Your task to perform on an android device: What's the weather going to be tomorrow? Image 0: 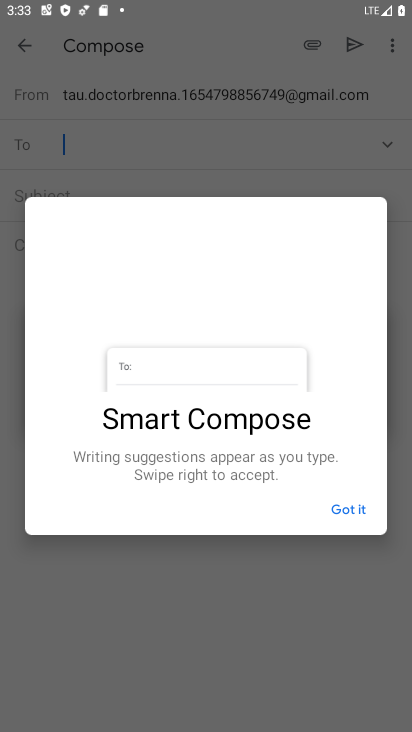
Step 0: press home button
Your task to perform on an android device: What's the weather going to be tomorrow? Image 1: 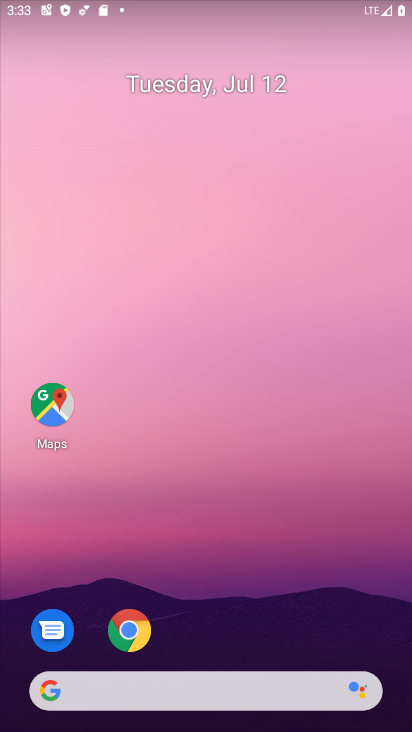
Step 1: drag from (260, 685) to (249, 5)
Your task to perform on an android device: What's the weather going to be tomorrow? Image 2: 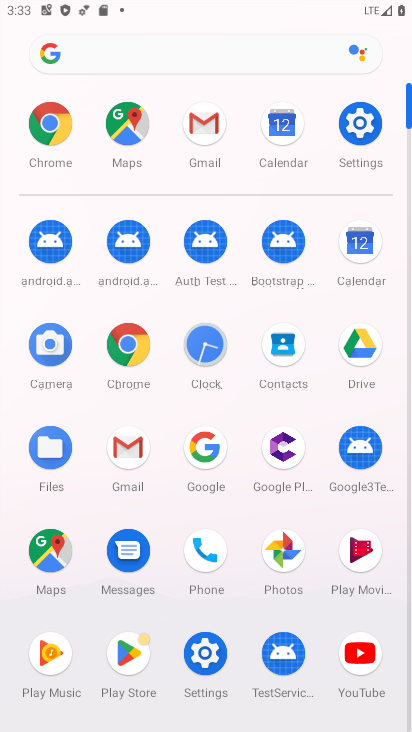
Step 2: click (133, 333)
Your task to perform on an android device: What's the weather going to be tomorrow? Image 3: 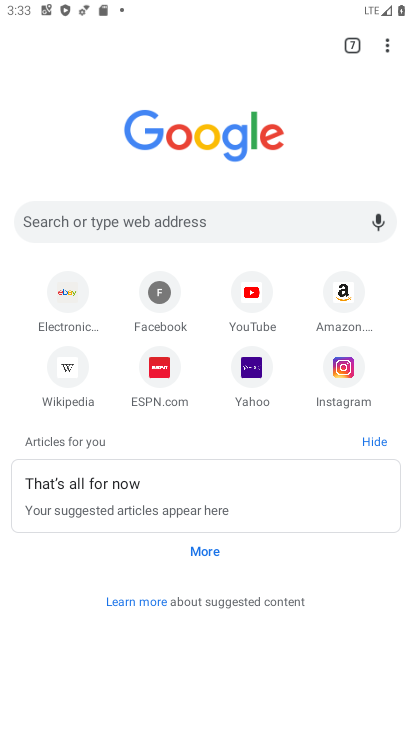
Step 3: click (194, 217)
Your task to perform on an android device: What's the weather going to be tomorrow? Image 4: 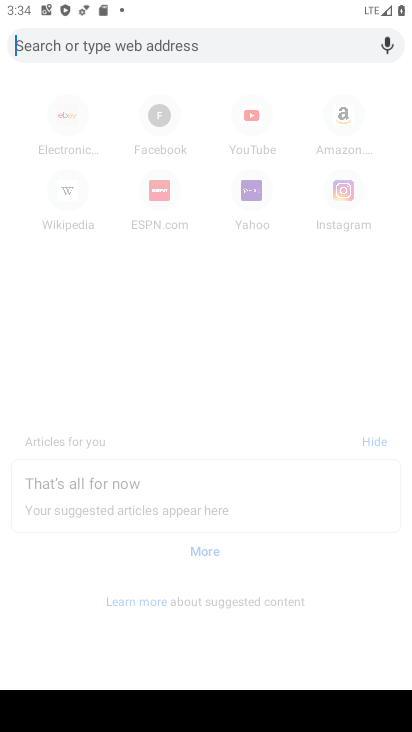
Step 4: type "weather going to be tomorrow"
Your task to perform on an android device: What's the weather going to be tomorrow? Image 5: 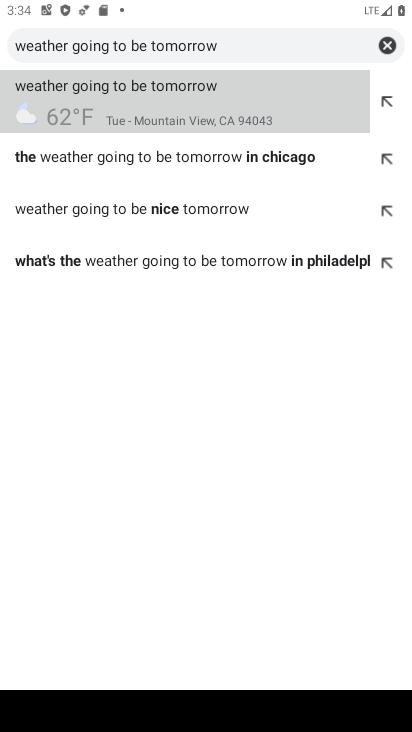
Step 5: click (143, 91)
Your task to perform on an android device: What's the weather going to be tomorrow? Image 6: 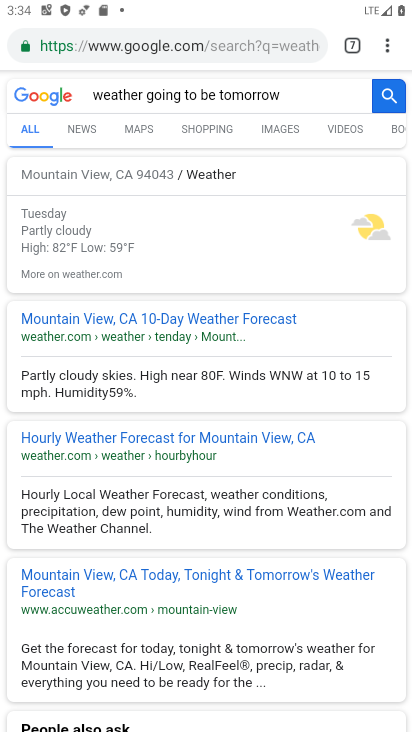
Step 6: task complete